Your task to perform on an android device: check battery use Image 0: 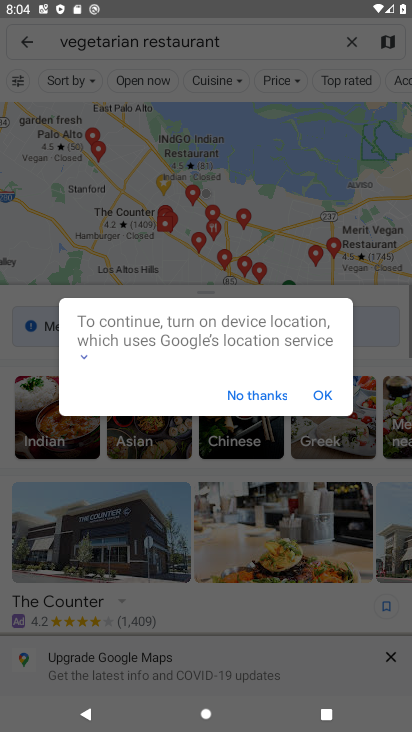
Step 0: drag from (214, 624) to (211, 243)
Your task to perform on an android device: check battery use Image 1: 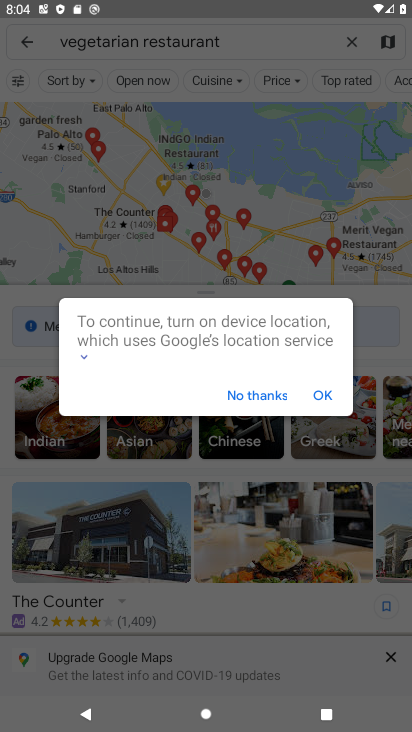
Step 1: press home button
Your task to perform on an android device: check battery use Image 2: 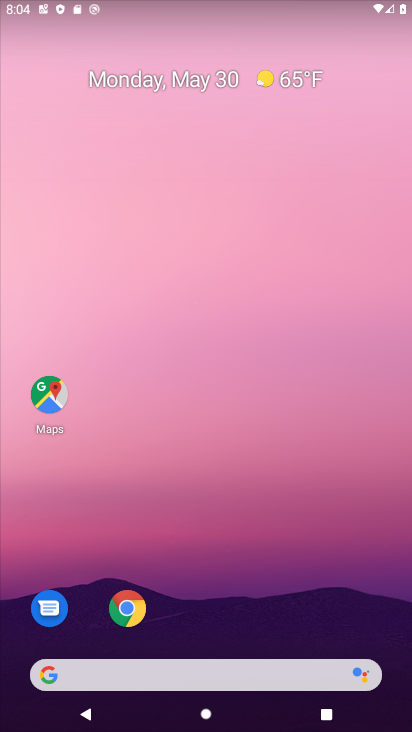
Step 2: drag from (223, 628) to (226, 202)
Your task to perform on an android device: check battery use Image 3: 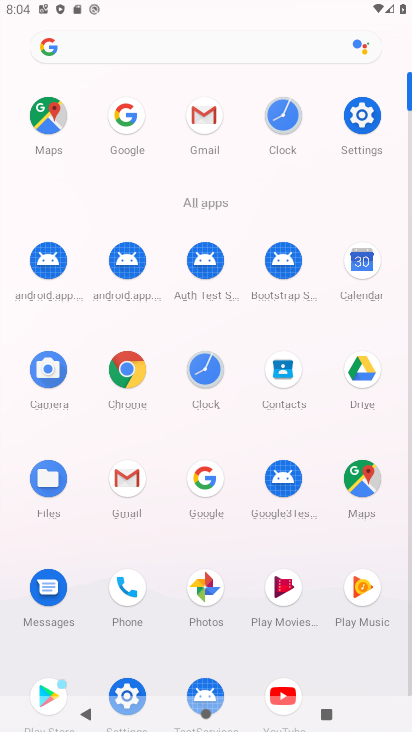
Step 3: click (354, 136)
Your task to perform on an android device: check battery use Image 4: 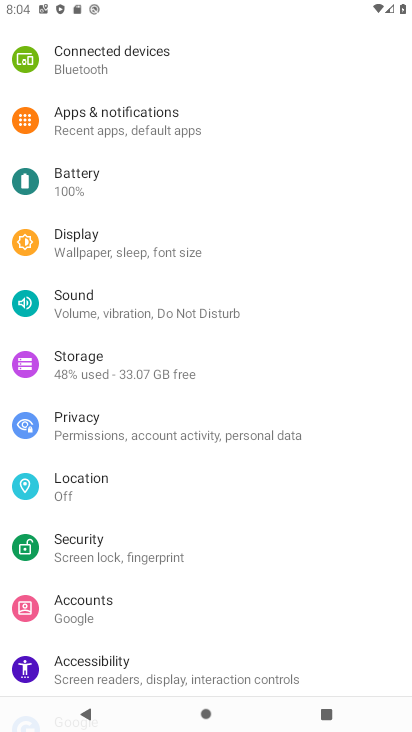
Step 4: click (107, 182)
Your task to perform on an android device: check battery use Image 5: 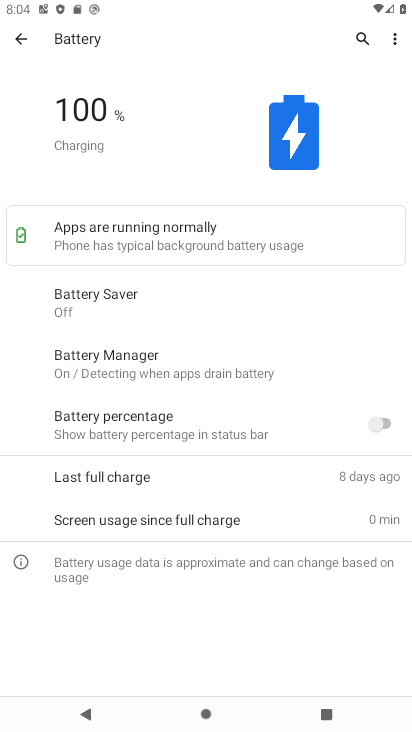
Step 5: click (396, 37)
Your task to perform on an android device: check battery use Image 6: 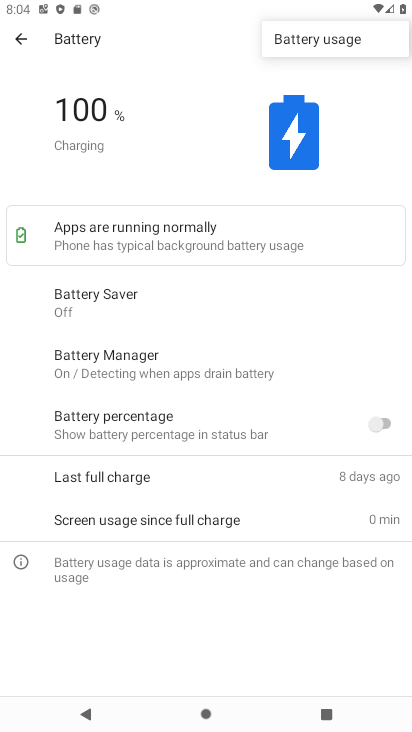
Step 6: click (287, 39)
Your task to perform on an android device: check battery use Image 7: 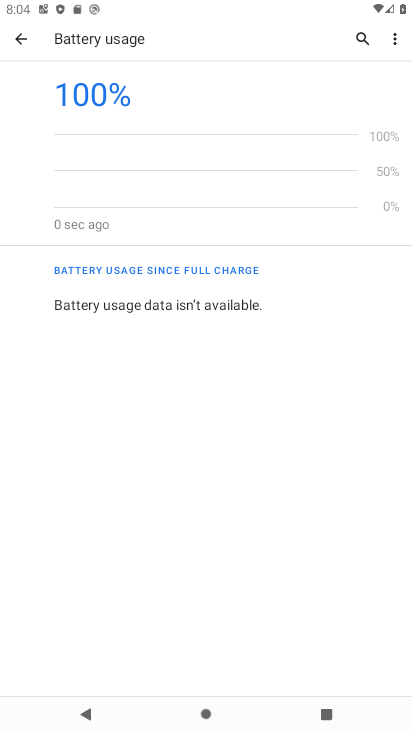
Step 7: task complete